Your task to perform on an android device: turn on airplane mode Image 0: 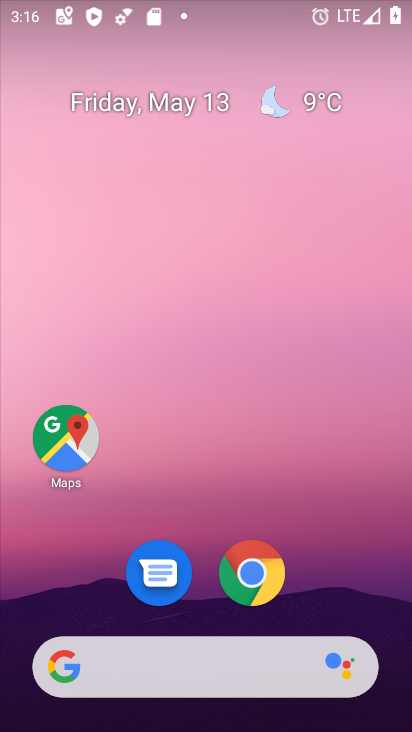
Step 0: drag from (332, 597) to (255, 57)
Your task to perform on an android device: turn on airplane mode Image 1: 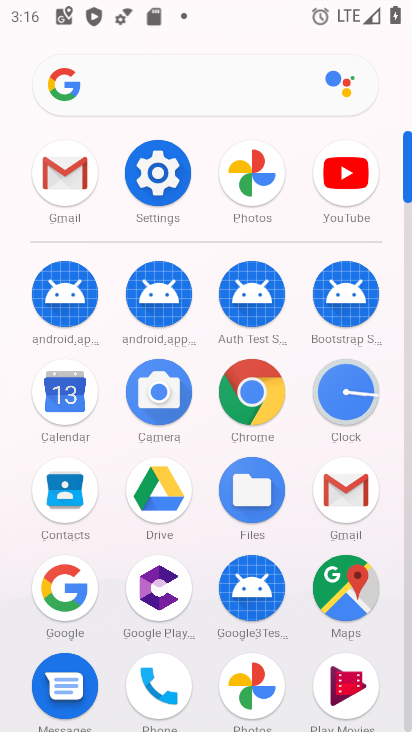
Step 1: click (155, 176)
Your task to perform on an android device: turn on airplane mode Image 2: 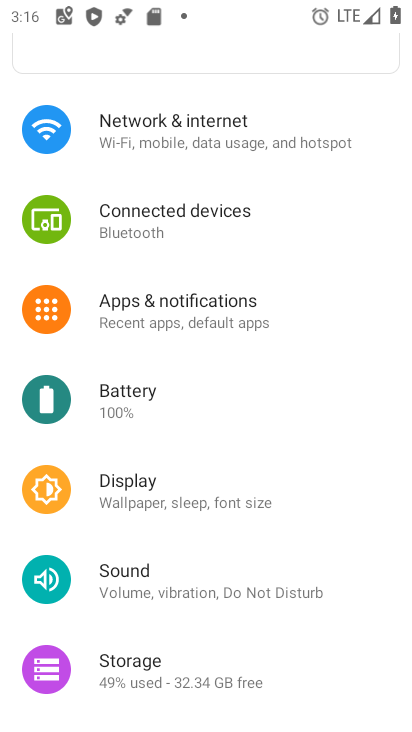
Step 2: drag from (185, 170) to (191, 317)
Your task to perform on an android device: turn on airplane mode Image 3: 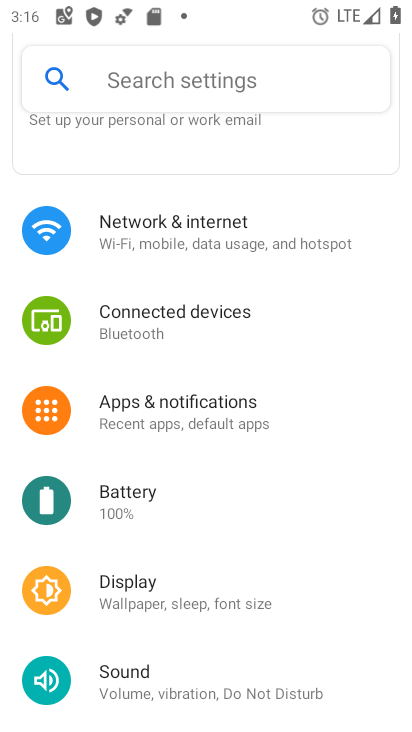
Step 3: click (168, 237)
Your task to perform on an android device: turn on airplane mode Image 4: 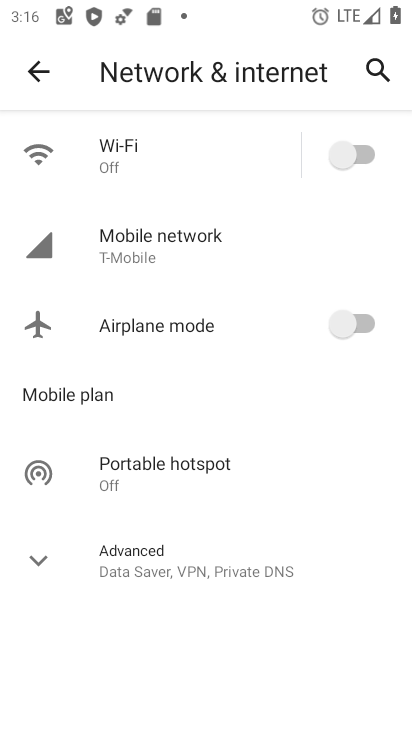
Step 4: click (358, 317)
Your task to perform on an android device: turn on airplane mode Image 5: 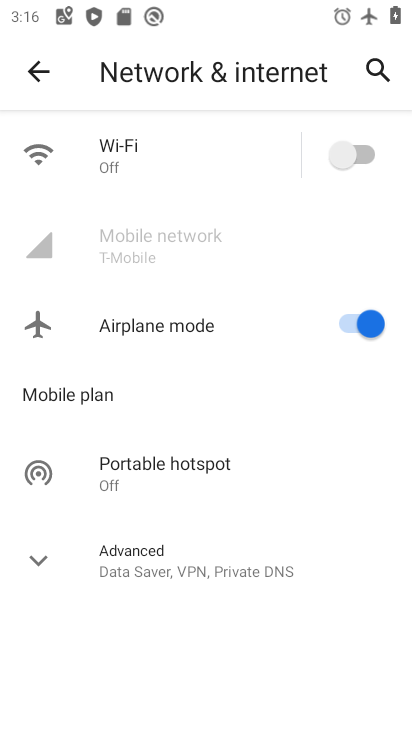
Step 5: task complete